Your task to perform on an android device: add a contact Image 0: 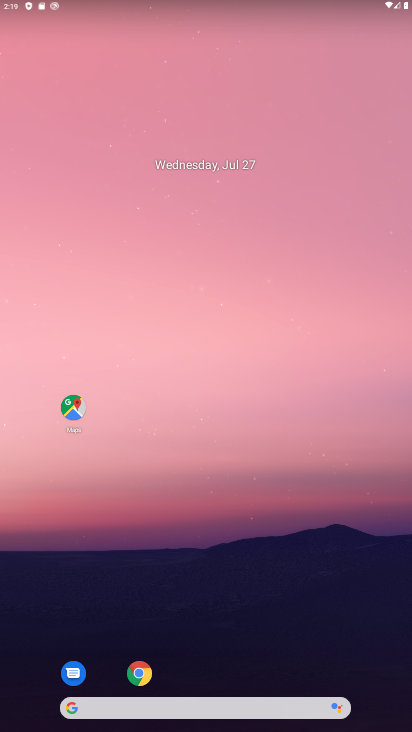
Step 0: press home button
Your task to perform on an android device: add a contact Image 1: 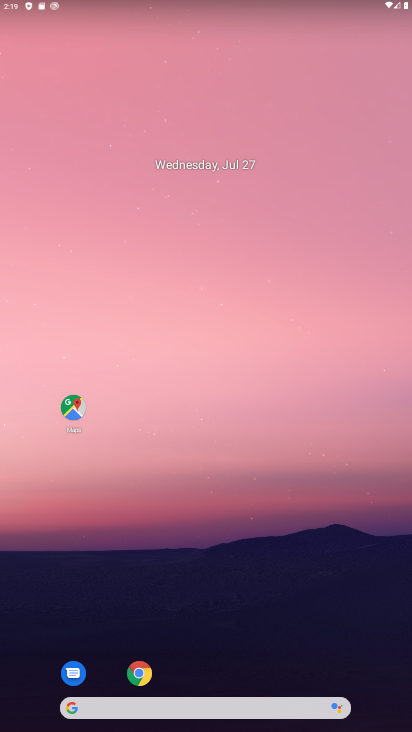
Step 1: drag from (242, 666) to (302, 157)
Your task to perform on an android device: add a contact Image 2: 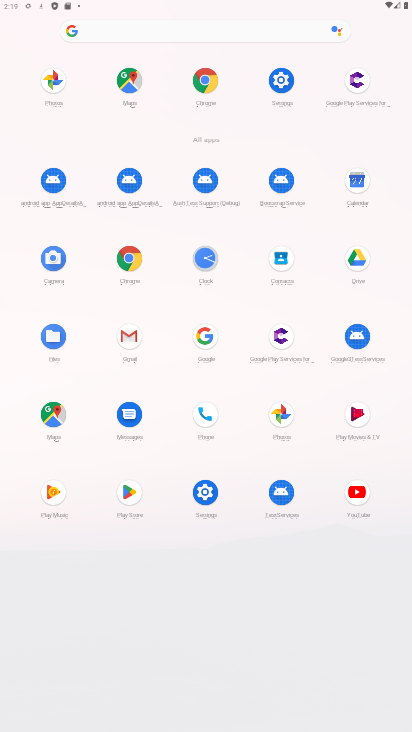
Step 2: click (279, 259)
Your task to perform on an android device: add a contact Image 3: 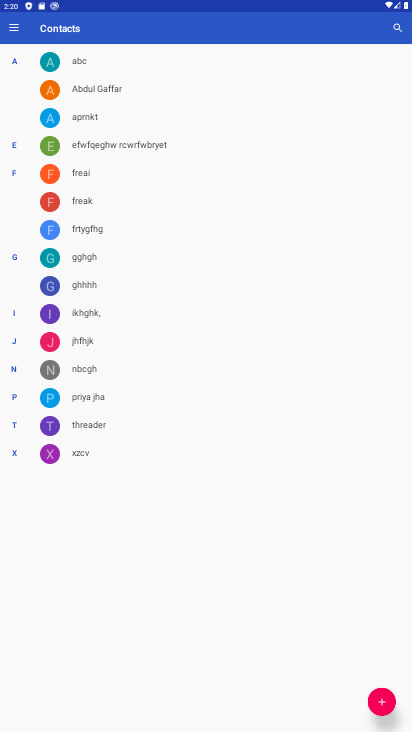
Step 3: click (377, 696)
Your task to perform on an android device: add a contact Image 4: 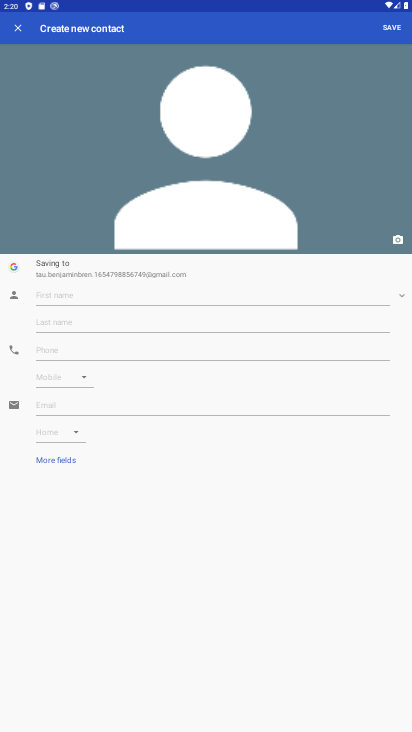
Step 4: click (171, 293)
Your task to perform on an android device: add a contact Image 5: 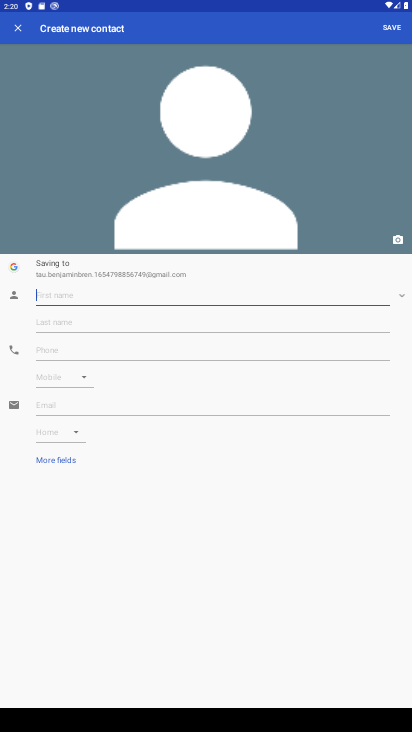
Step 5: type "gjgjgjgj"
Your task to perform on an android device: add a contact Image 6: 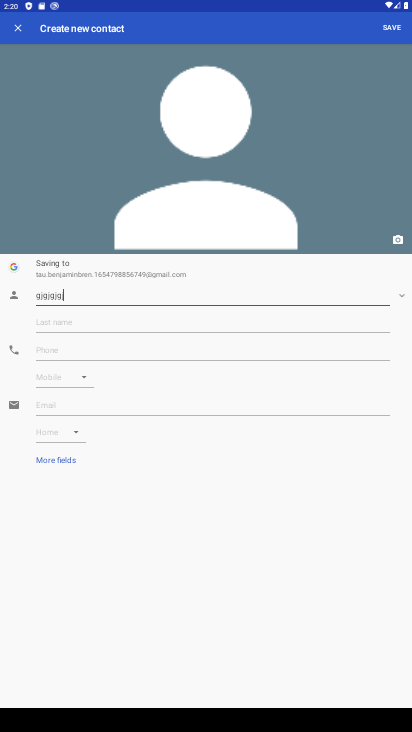
Step 6: click (109, 357)
Your task to perform on an android device: add a contact Image 7: 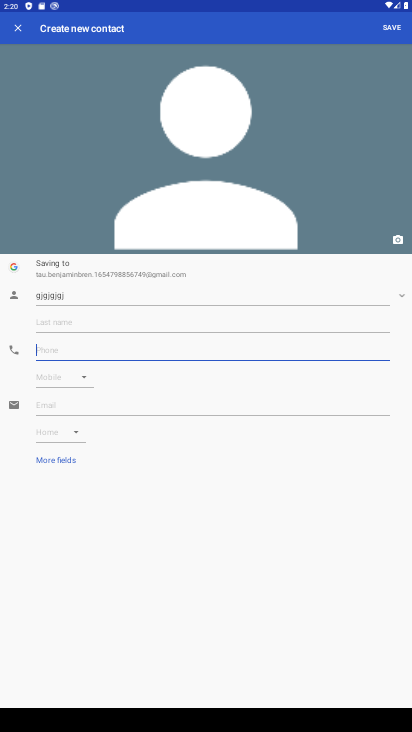
Step 7: type "979778"
Your task to perform on an android device: add a contact Image 8: 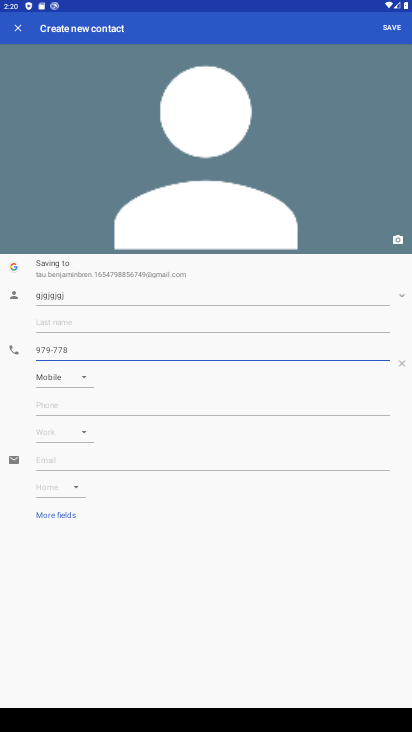
Step 8: click (384, 28)
Your task to perform on an android device: add a contact Image 9: 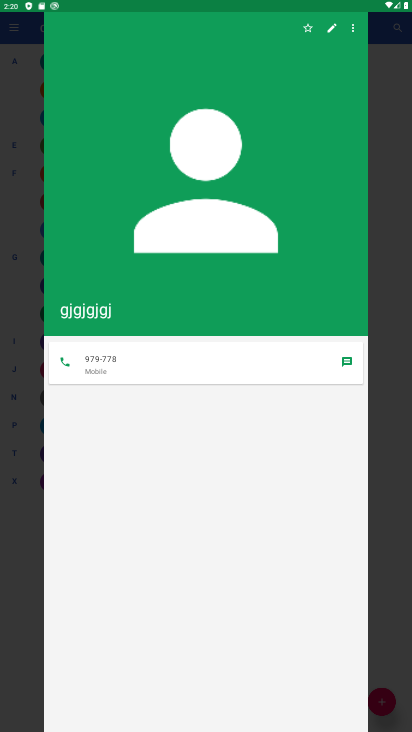
Step 9: task complete